Your task to perform on an android device: Open CNN.com Image 0: 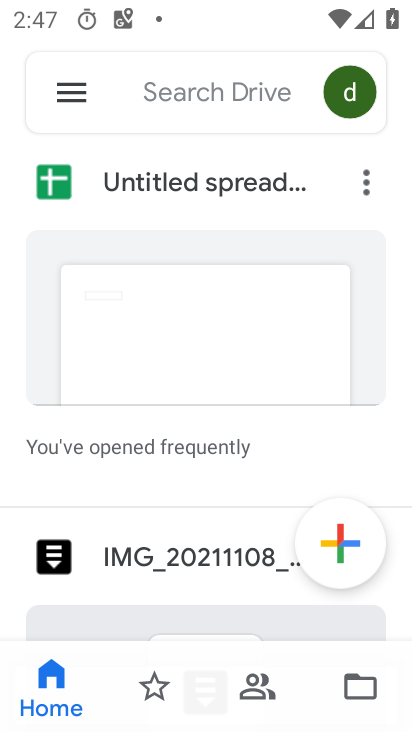
Step 0: press home button
Your task to perform on an android device: Open CNN.com Image 1: 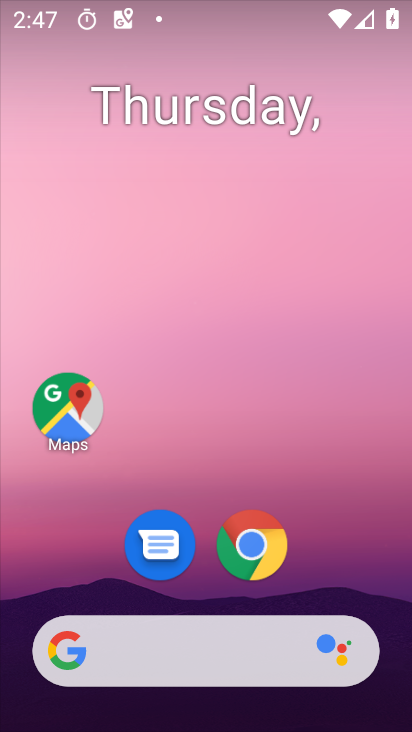
Step 1: click (243, 541)
Your task to perform on an android device: Open CNN.com Image 2: 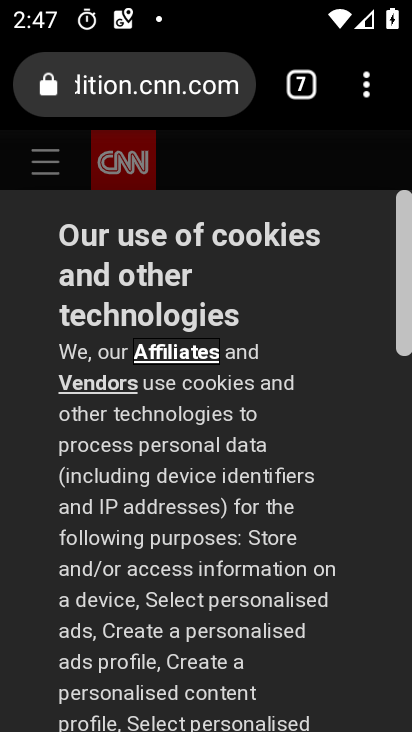
Step 2: task complete